Your task to perform on an android device: Open calendar and show me the second week of next month Image 0: 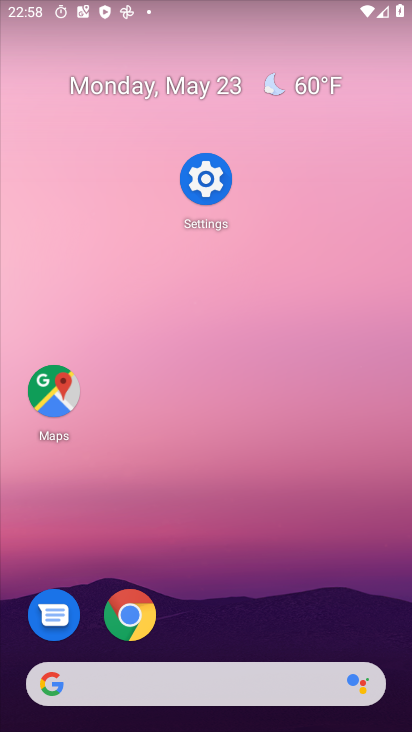
Step 0: drag from (245, 607) to (254, 97)
Your task to perform on an android device: Open calendar and show me the second week of next month Image 1: 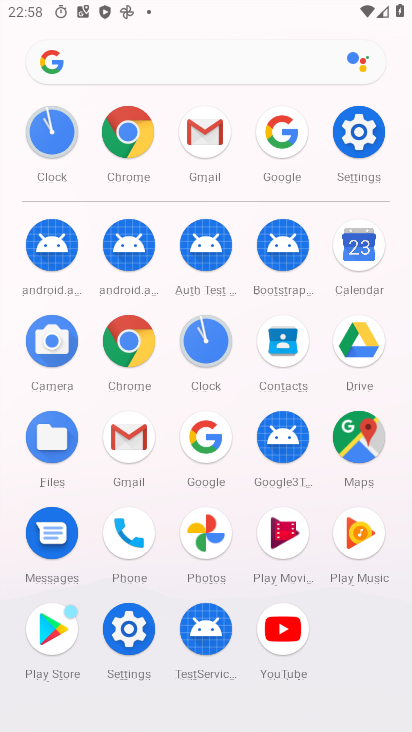
Step 1: click (361, 248)
Your task to perform on an android device: Open calendar and show me the second week of next month Image 2: 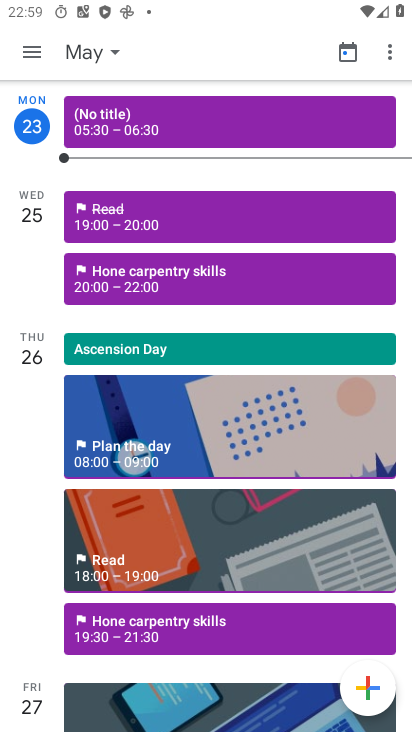
Step 2: click (98, 58)
Your task to perform on an android device: Open calendar and show me the second week of next month Image 3: 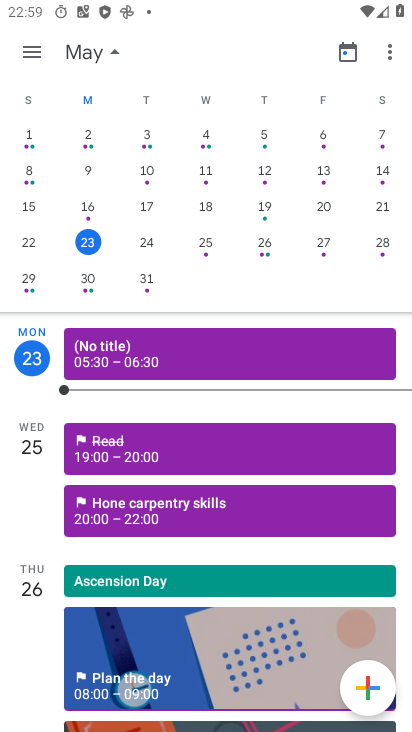
Step 3: drag from (349, 293) to (2, 266)
Your task to perform on an android device: Open calendar and show me the second week of next month Image 4: 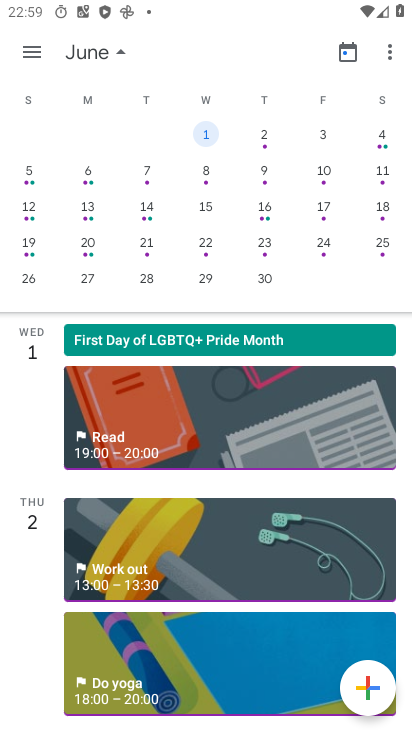
Step 4: click (211, 171)
Your task to perform on an android device: Open calendar and show me the second week of next month Image 5: 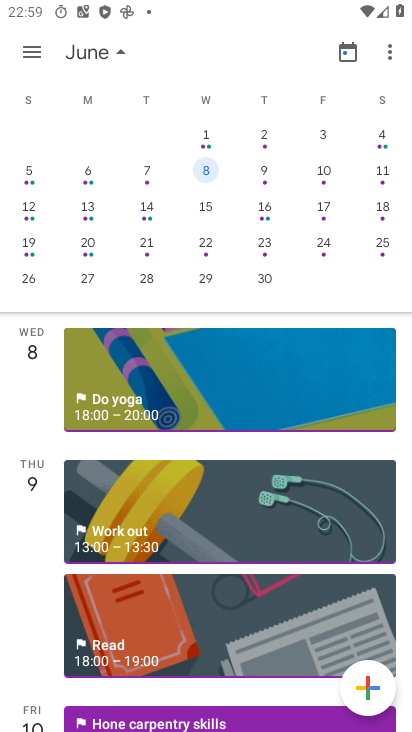
Step 5: task complete